Your task to perform on an android device: toggle translation in the chrome app Image 0: 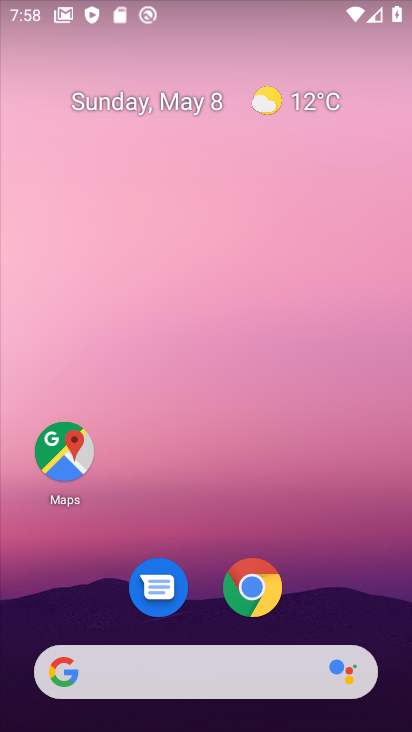
Step 0: click (256, 578)
Your task to perform on an android device: toggle translation in the chrome app Image 1: 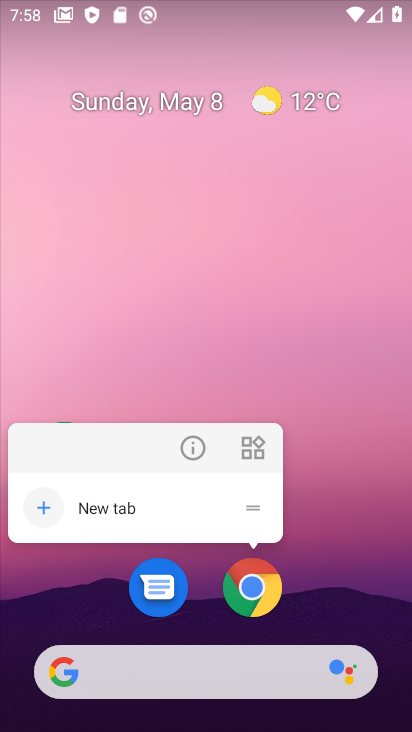
Step 1: click (258, 578)
Your task to perform on an android device: toggle translation in the chrome app Image 2: 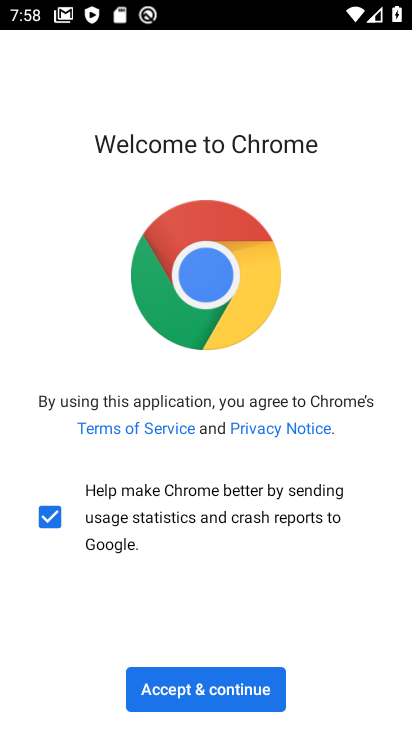
Step 2: click (243, 689)
Your task to perform on an android device: toggle translation in the chrome app Image 3: 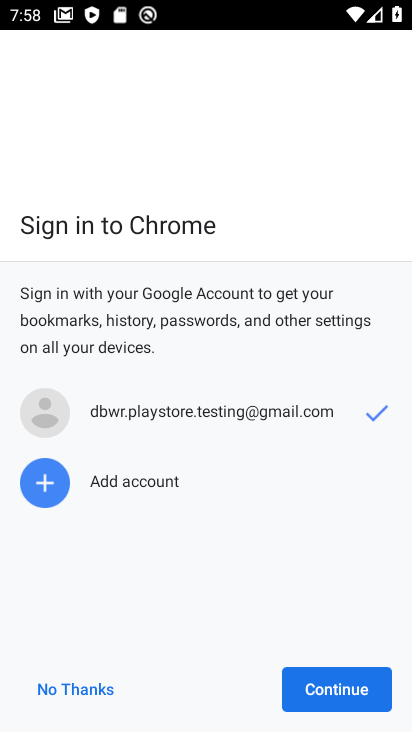
Step 3: click (310, 672)
Your task to perform on an android device: toggle translation in the chrome app Image 4: 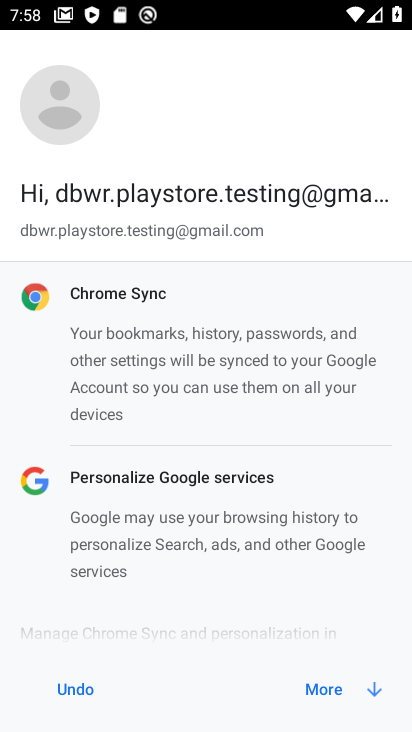
Step 4: click (310, 672)
Your task to perform on an android device: toggle translation in the chrome app Image 5: 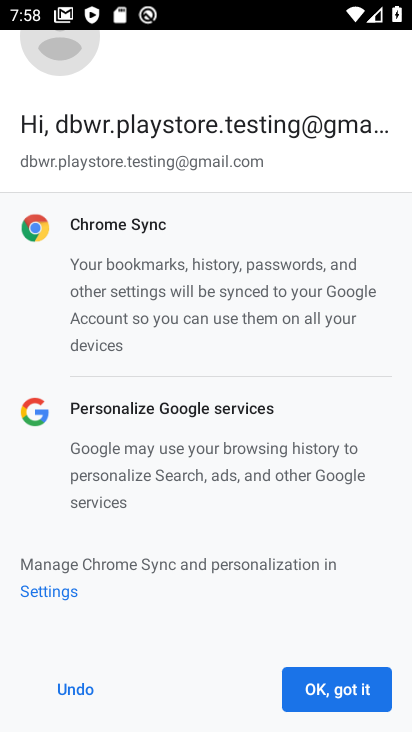
Step 5: click (310, 672)
Your task to perform on an android device: toggle translation in the chrome app Image 6: 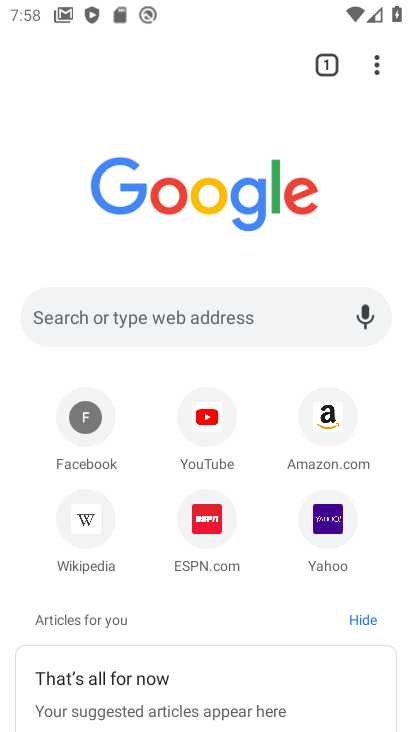
Step 6: click (375, 62)
Your task to perform on an android device: toggle translation in the chrome app Image 7: 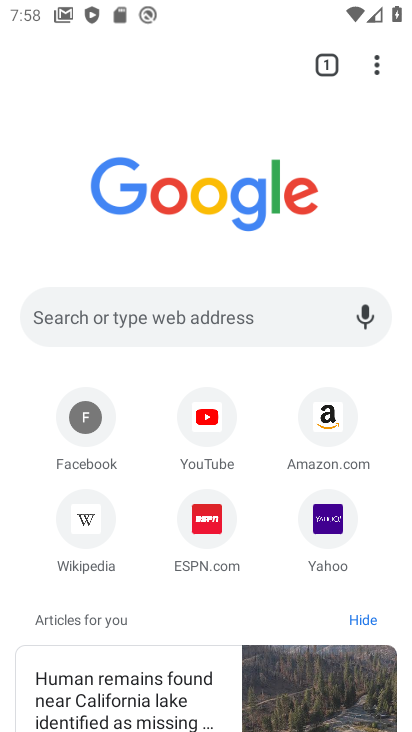
Step 7: click (367, 60)
Your task to perform on an android device: toggle translation in the chrome app Image 8: 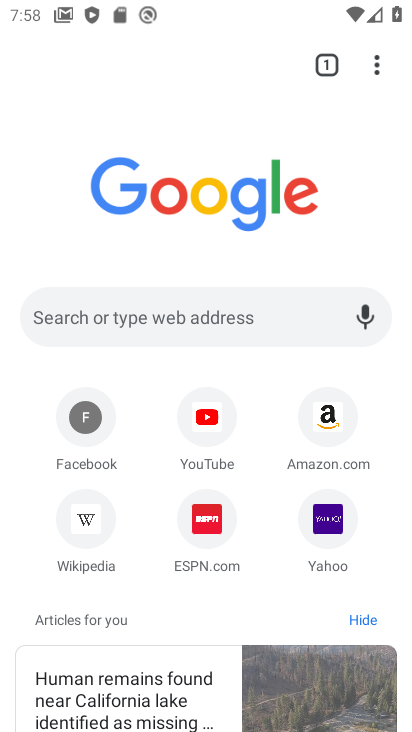
Step 8: click (367, 60)
Your task to perform on an android device: toggle translation in the chrome app Image 9: 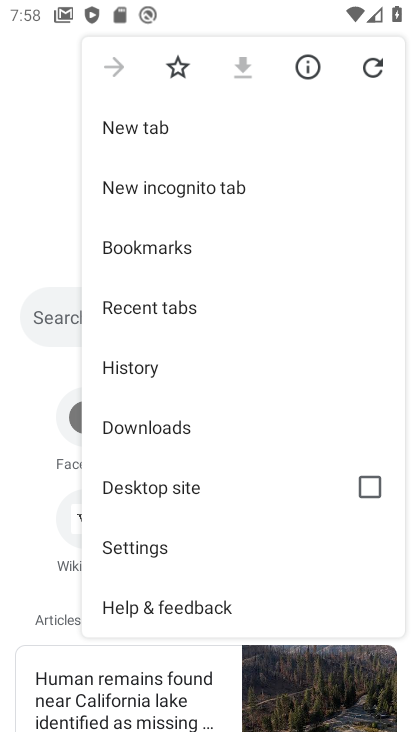
Step 9: click (274, 553)
Your task to perform on an android device: toggle translation in the chrome app Image 10: 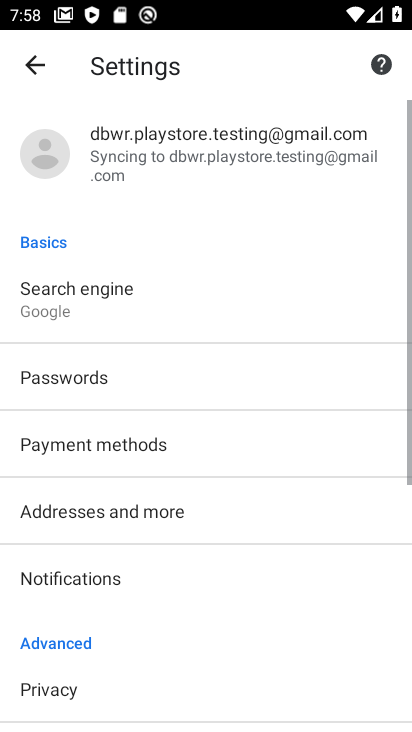
Step 10: drag from (274, 553) to (289, 52)
Your task to perform on an android device: toggle translation in the chrome app Image 11: 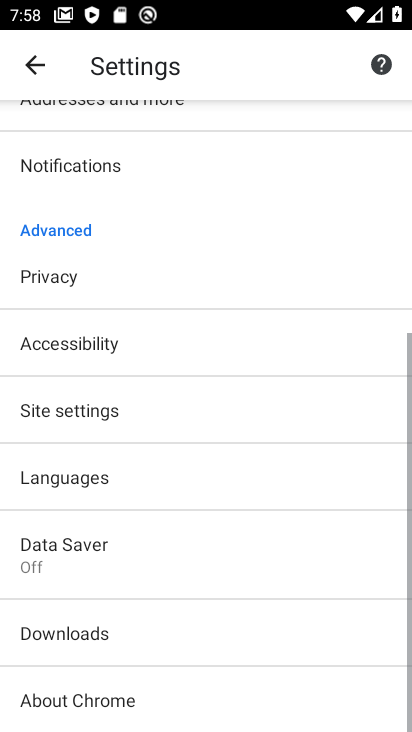
Step 11: click (183, 470)
Your task to perform on an android device: toggle translation in the chrome app Image 12: 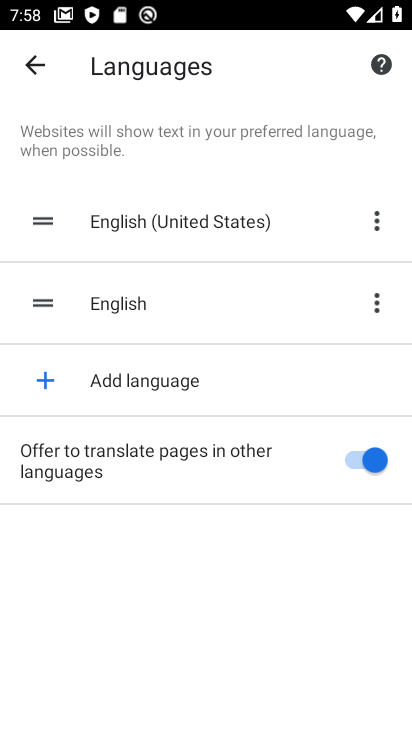
Step 12: click (381, 459)
Your task to perform on an android device: toggle translation in the chrome app Image 13: 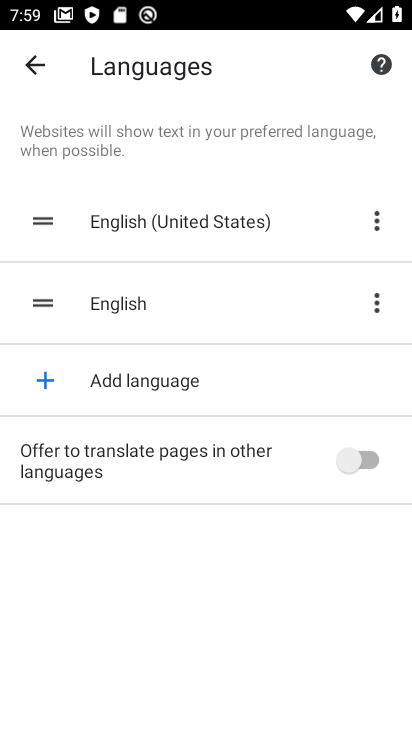
Step 13: task complete